Your task to perform on an android device: move a message to another label in the gmail app Image 0: 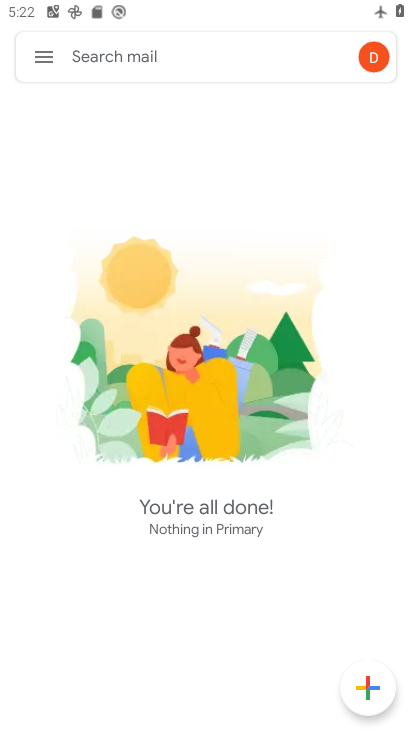
Step 0: press home button
Your task to perform on an android device: move a message to another label in the gmail app Image 1: 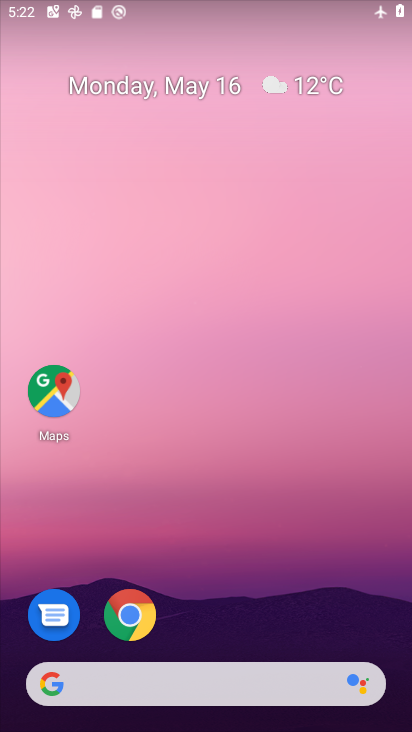
Step 1: drag from (224, 620) to (237, 93)
Your task to perform on an android device: move a message to another label in the gmail app Image 2: 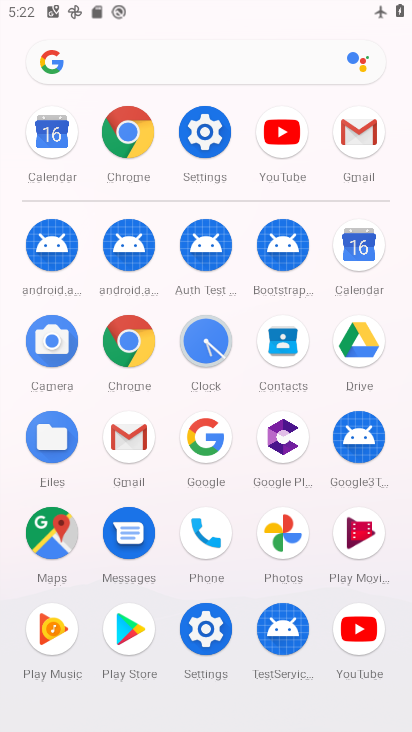
Step 2: click (368, 142)
Your task to perform on an android device: move a message to another label in the gmail app Image 3: 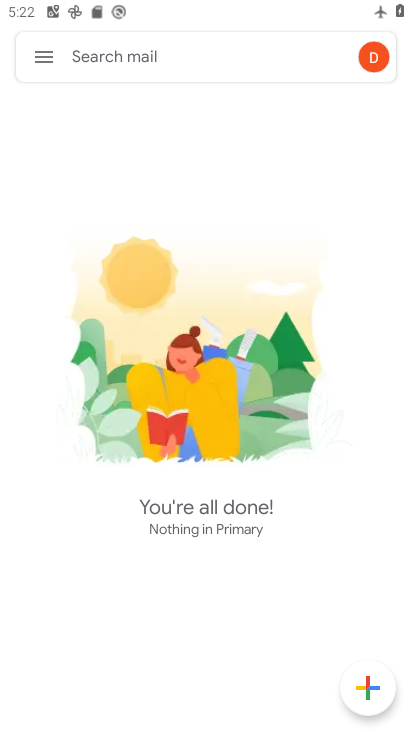
Step 3: click (34, 61)
Your task to perform on an android device: move a message to another label in the gmail app Image 4: 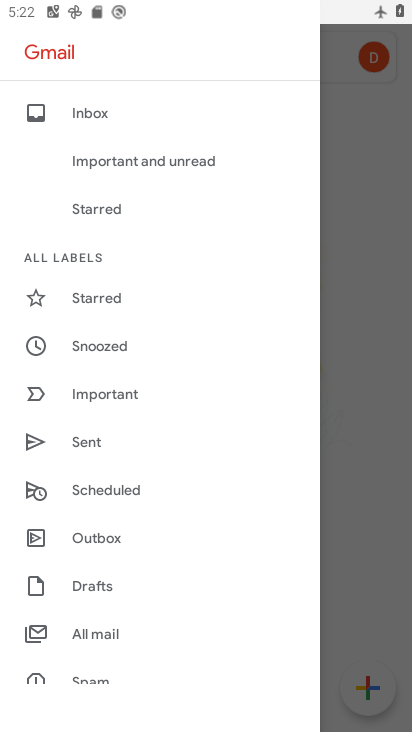
Step 4: drag from (97, 648) to (187, 342)
Your task to perform on an android device: move a message to another label in the gmail app Image 5: 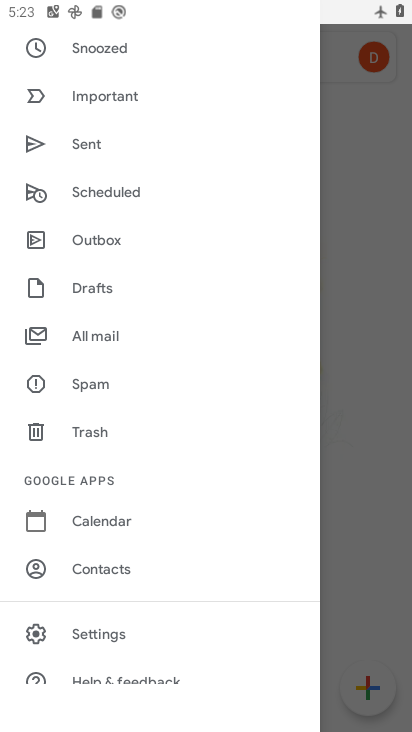
Step 5: click (99, 346)
Your task to perform on an android device: move a message to another label in the gmail app Image 6: 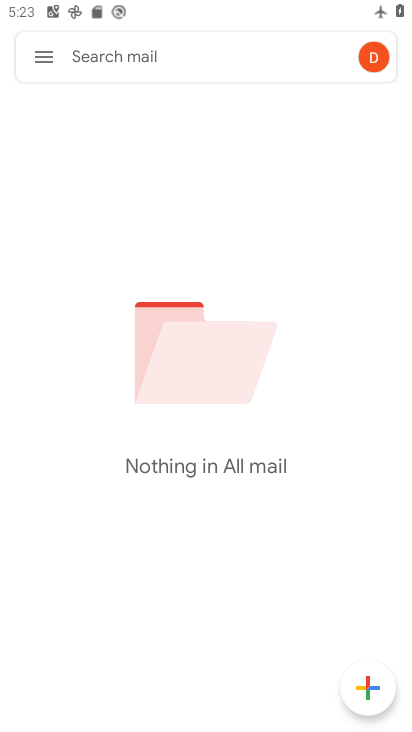
Step 6: task complete